Your task to perform on an android device: make emails show in primary in the gmail app Image 0: 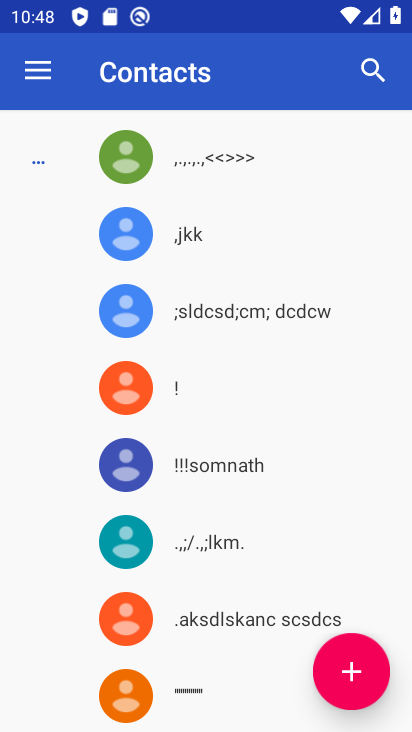
Step 0: press home button
Your task to perform on an android device: make emails show in primary in the gmail app Image 1: 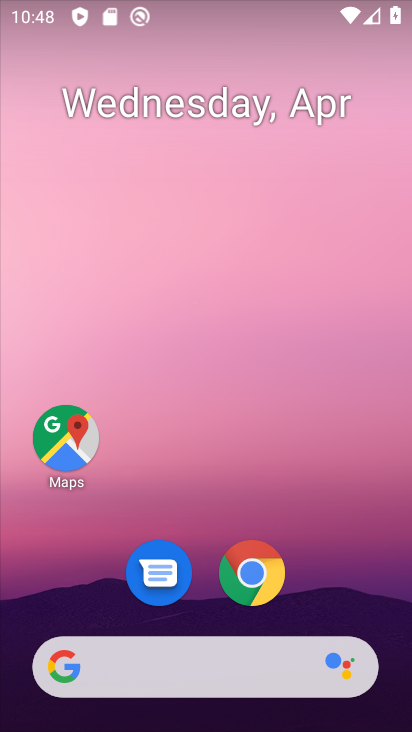
Step 1: drag from (369, 622) to (315, 2)
Your task to perform on an android device: make emails show in primary in the gmail app Image 2: 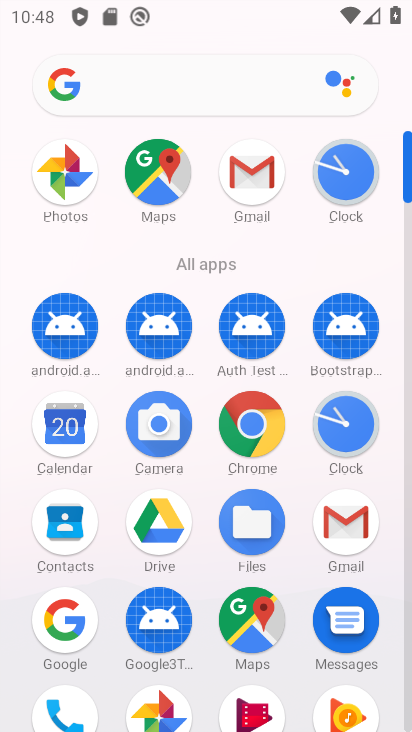
Step 2: click (253, 173)
Your task to perform on an android device: make emails show in primary in the gmail app Image 3: 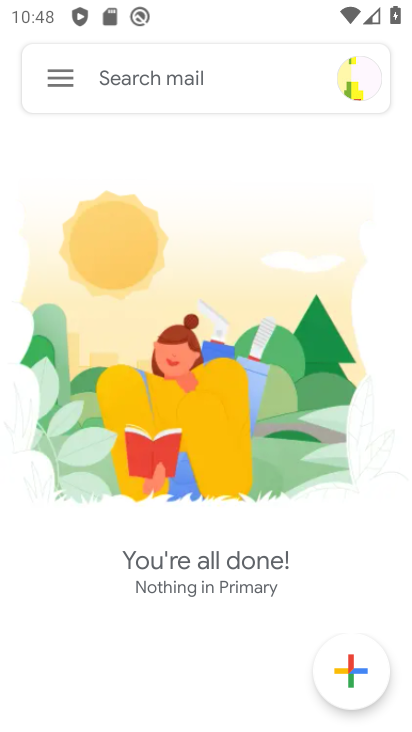
Step 3: click (53, 77)
Your task to perform on an android device: make emails show in primary in the gmail app Image 4: 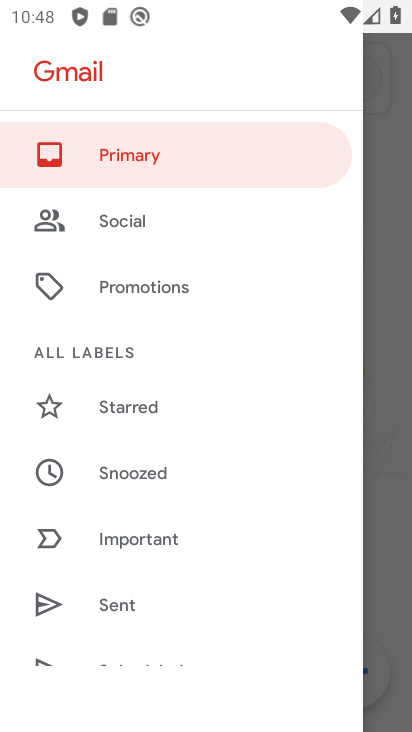
Step 4: click (116, 159)
Your task to perform on an android device: make emails show in primary in the gmail app Image 5: 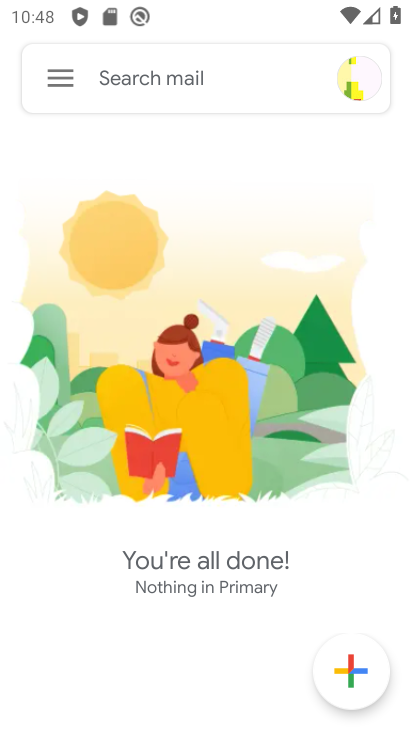
Step 5: task complete